Your task to perform on an android device: Open location settings Image 0: 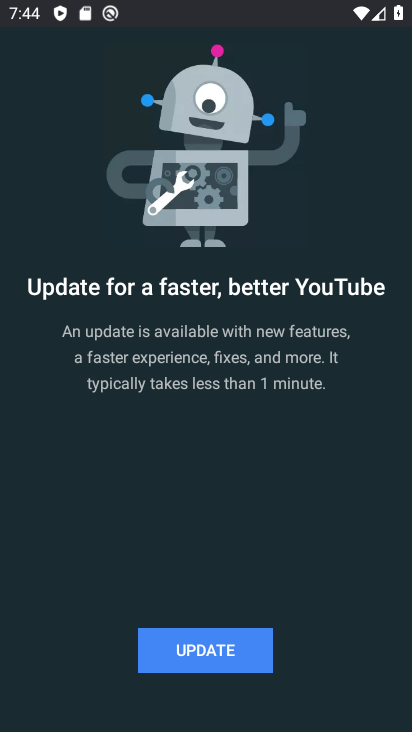
Step 0: press home button
Your task to perform on an android device: Open location settings Image 1: 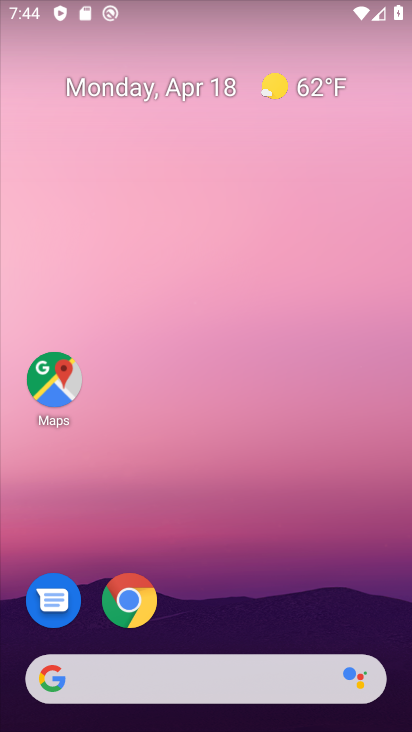
Step 1: drag from (199, 647) to (176, 27)
Your task to perform on an android device: Open location settings Image 2: 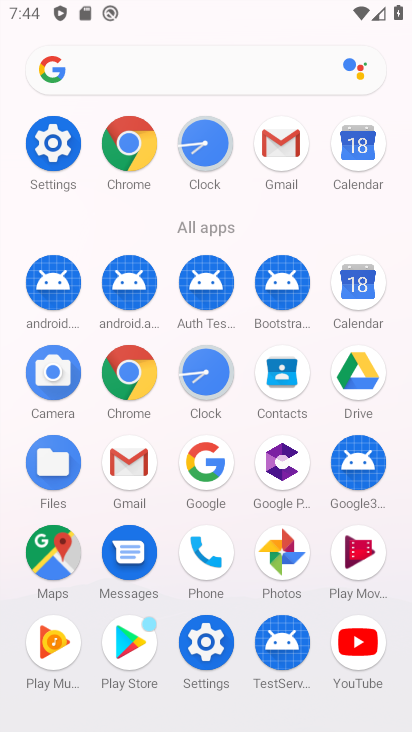
Step 2: click (214, 645)
Your task to perform on an android device: Open location settings Image 3: 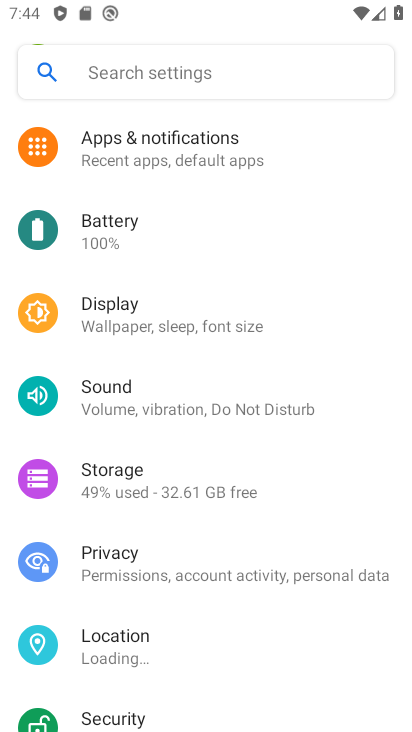
Step 3: click (77, 660)
Your task to perform on an android device: Open location settings Image 4: 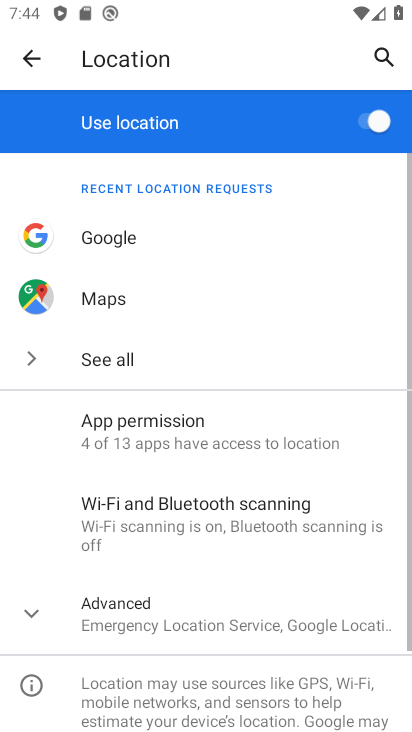
Step 4: drag from (163, 606) to (144, 179)
Your task to perform on an android device: Open location settings Image 5: 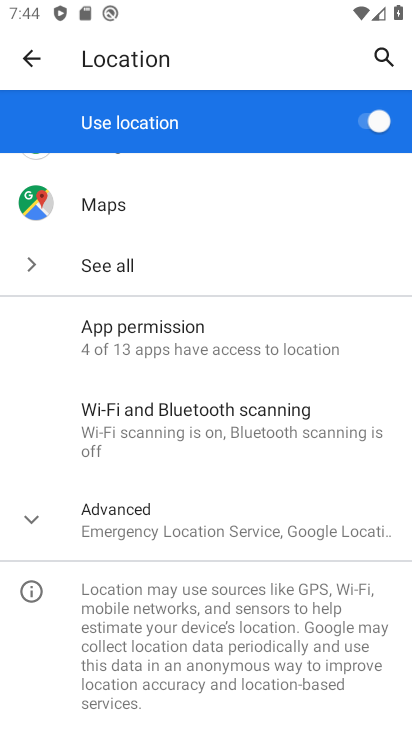
Step 5: click (139, 505)
Your task to perform on an android device: Open location settings Image 6: 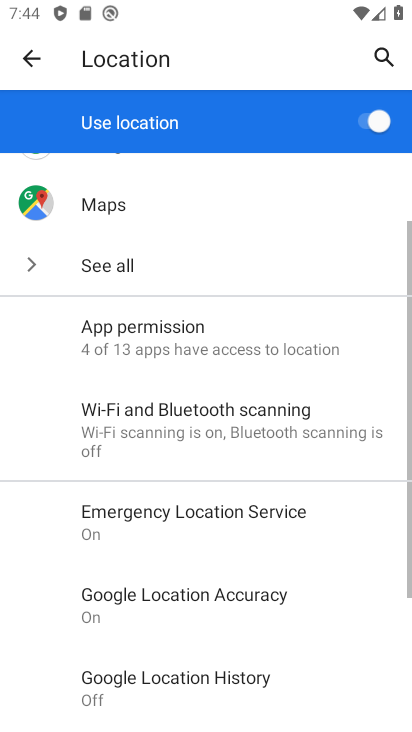
Step 6: task complete